Your task to perform on an android device: What's the weather? Image 0: 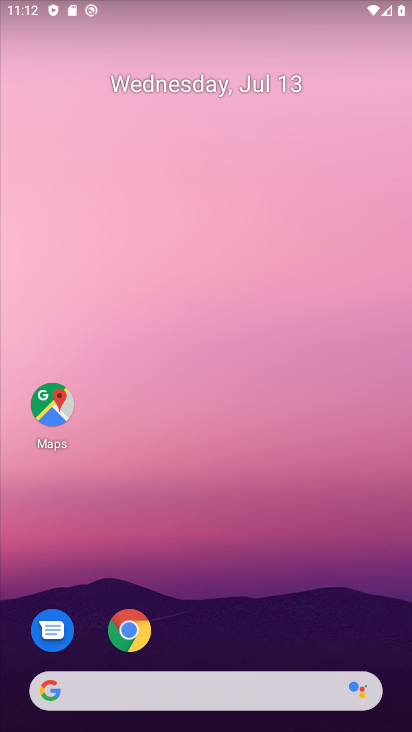
Step 0: click (123, 683)
Your task to perform on an android device: What's the weather? Image 1: 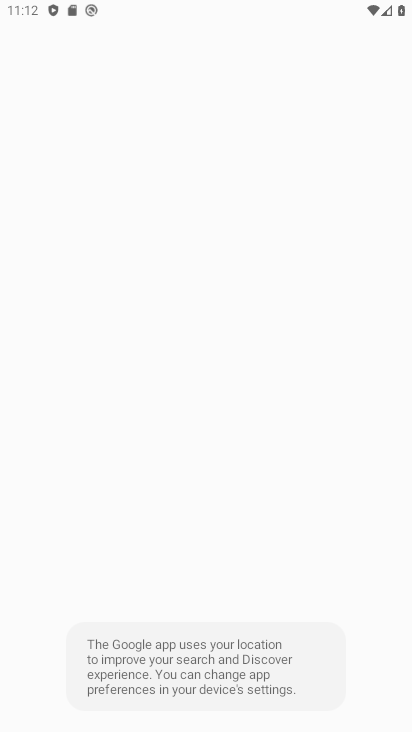
Step 1: click (159, 707)
Your task to perform on an android device: What's the weather? Image 2: 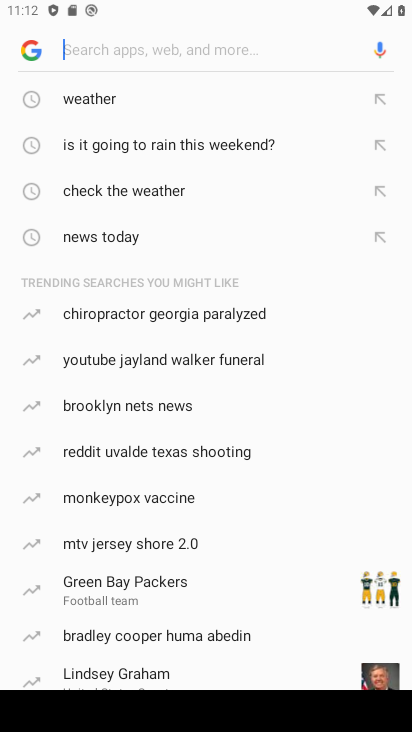
Step 2: click (133, 107)
Your task to perform on an android device: What's the weather? Image 3: 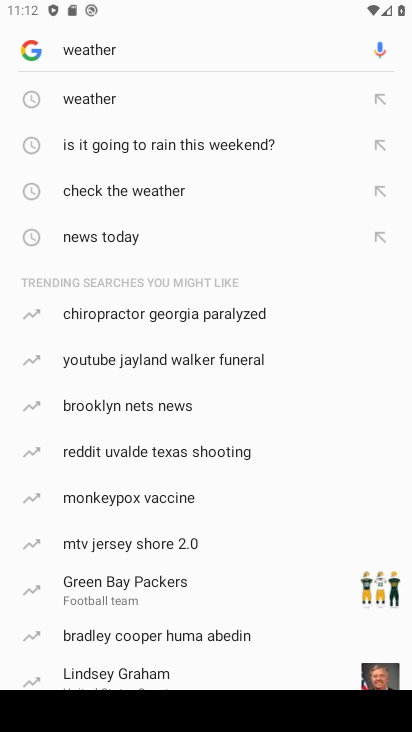
Step 3: click (67, 91)
Your task to perform on an android device: What's the weather? Image 4: 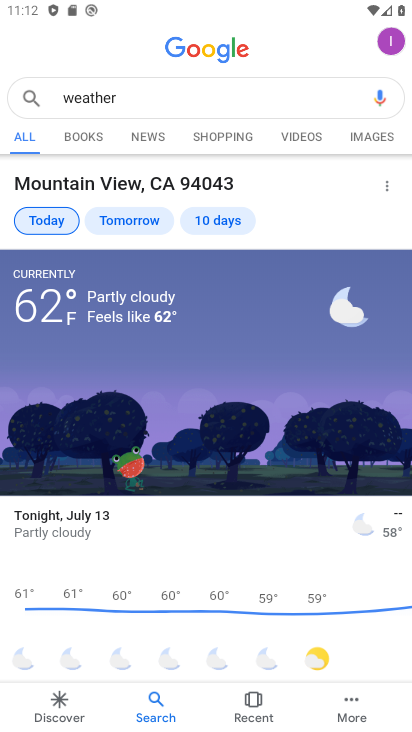
Step 4: task complete